Your task to perform on an android device: Do I have any events tomorrow? Image 0: 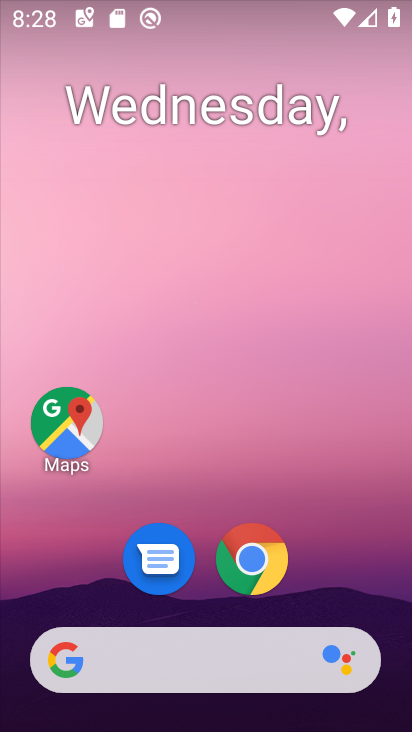
Step 0: drag from (346, 559) to (354, 87)
Your task to perform on an android device: Do I have any events tomorrow? Image 1: 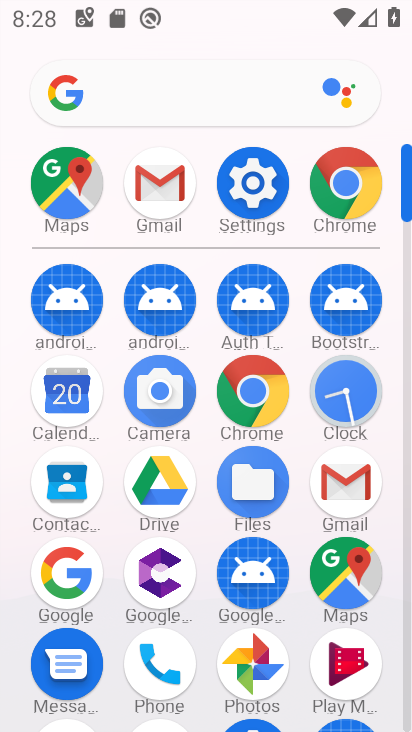
Step 1: click (66, 398)
Your task to perform on an android device: Do I have any events tomorrow? Image 2: 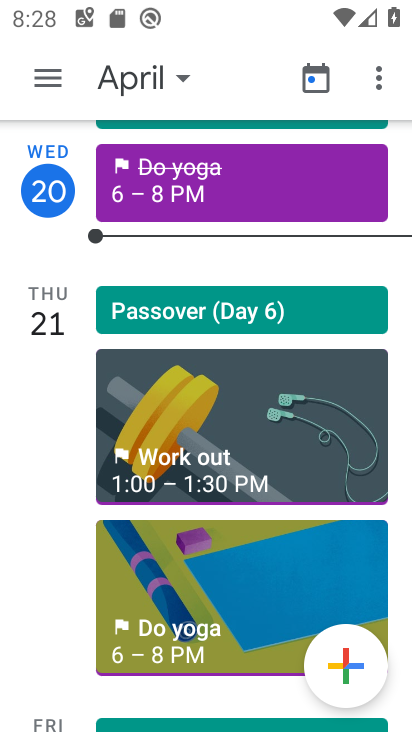
Step 2: click (135, 67)
Your task to perform on an android device: Do I have any events tomorrow? Image 3: 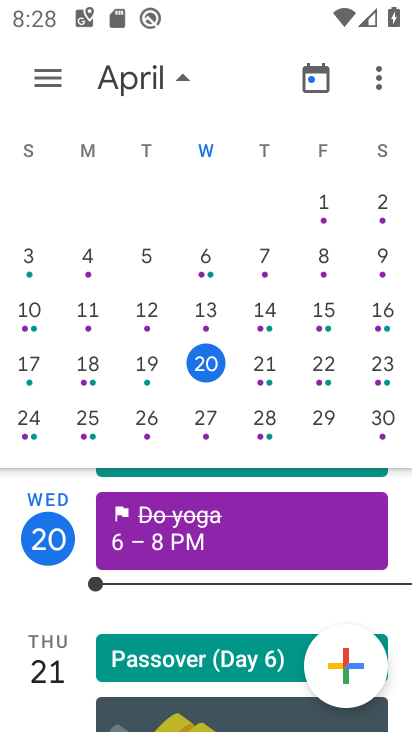
Step 3: click (267, 363)
Your task to perform on an android device: Do I have any events tomorrow? Image 4: 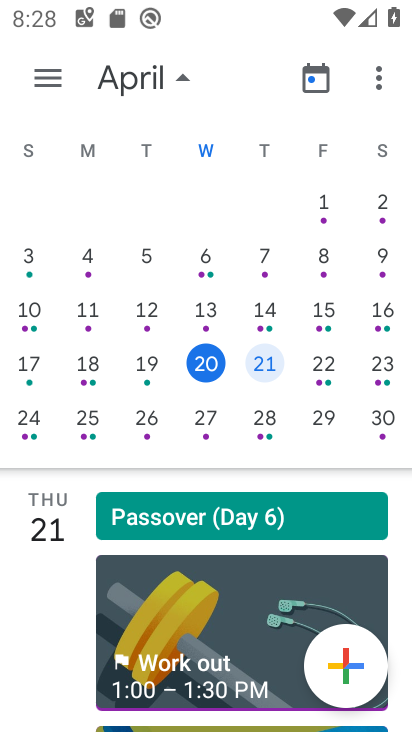
Step 4: task complete